Your task to perform on an android device: turn on priority inbox in the gmail app Image 0: 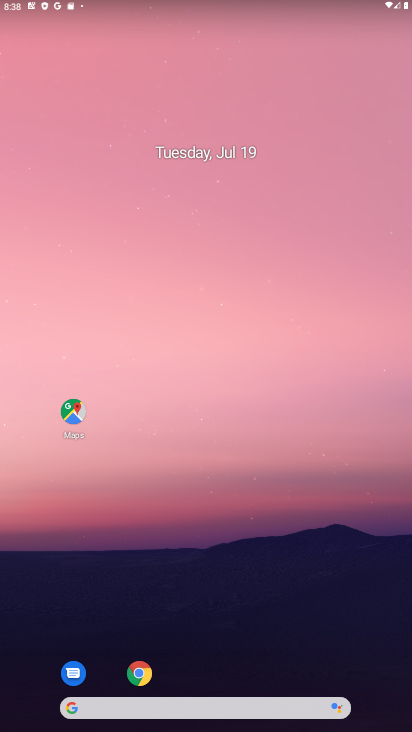
Step 0: drag from (231, 527) to (204, 168)
Your task to perform on an android device: turn on priority inbox in the gmail app Image 1: 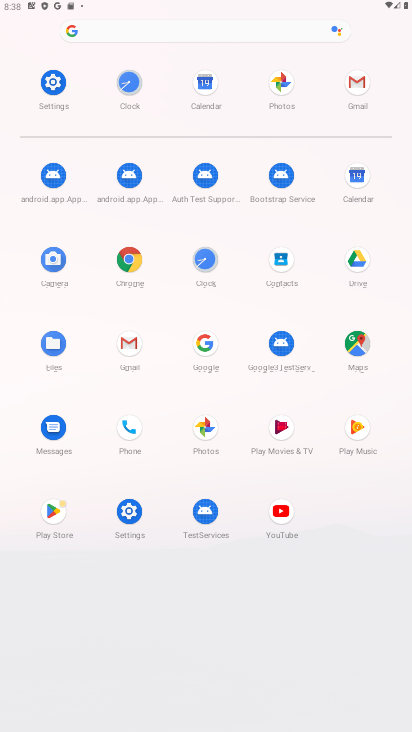
Step 1: click (365, 100)
Your task to perform on an android device: turn on priority inbox in the gmail app Image 2: 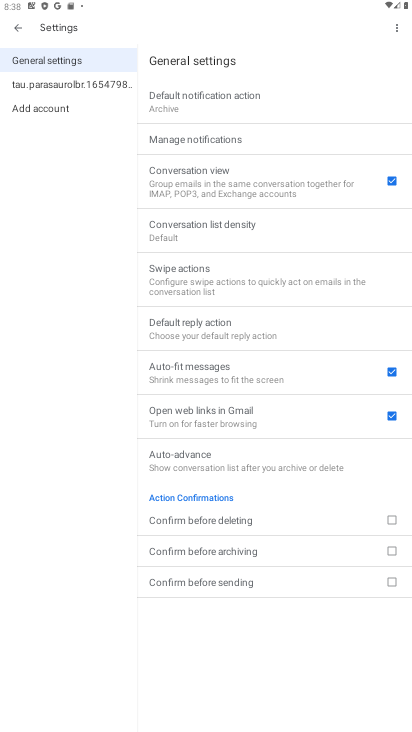
Step 2: click (35, 81)
Your task to perform on an android device: turn on priority inbox in the gmail app Image 3: 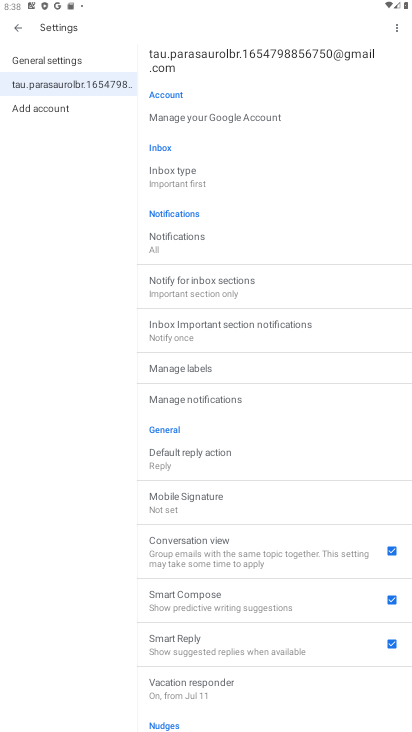
Step 3: click (204, 193)
Your task to perform on an android device: turn on priority inbox in the gmail app Image 4: 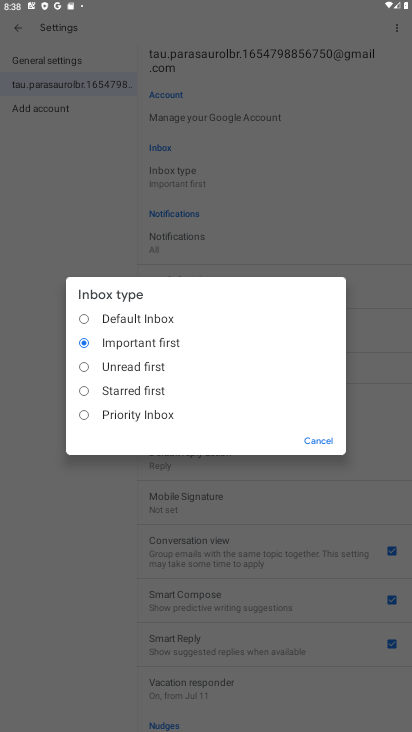
Step 4: click (129, 425)
Your task to perform on an android device: turn on priority inbox in the gmail app Image 5: 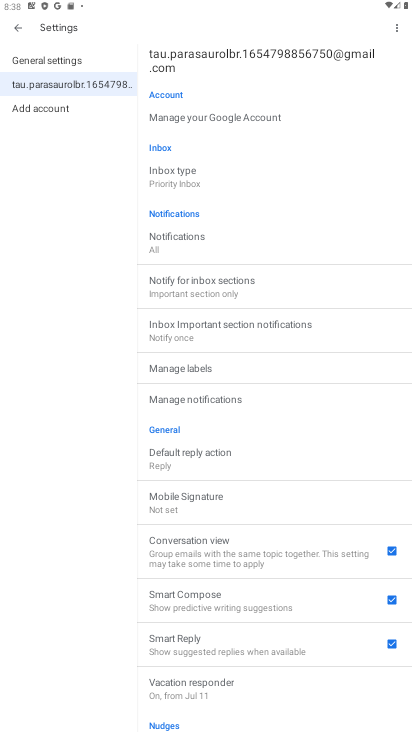
Step 5: task complete